Your task to perform on an android device: Open calendar and show me the third week of next month Image 0: 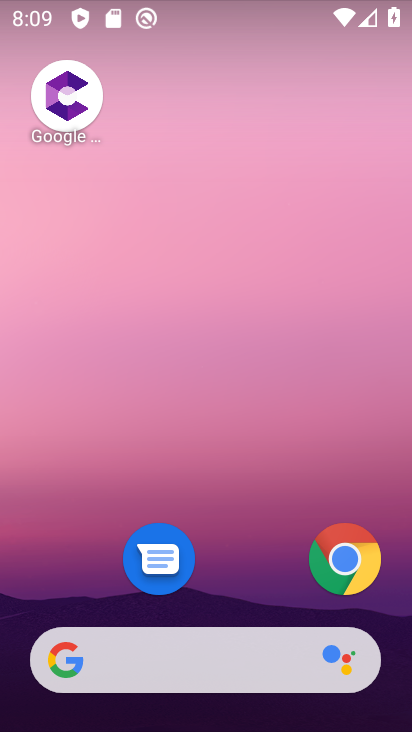
Step 0: drag from (256, 698) to (221, 9)
Your task to perform on an android device: Open calendar and show me the third week of next month Image 1: 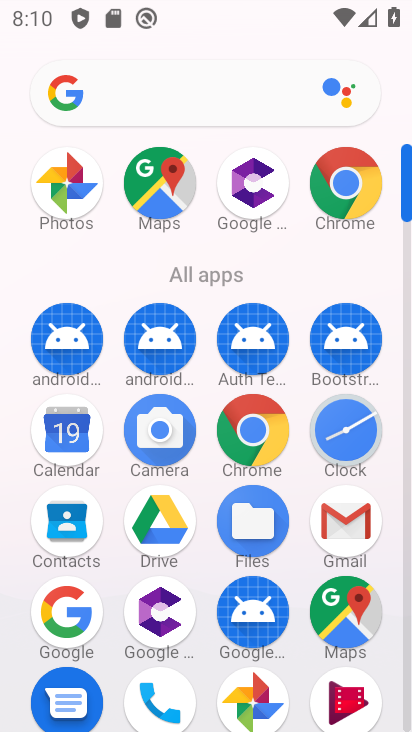
Step 1: click (77, 427)
Your task to perform on an android device: Open calendar and show me the third week of next month Image 2: 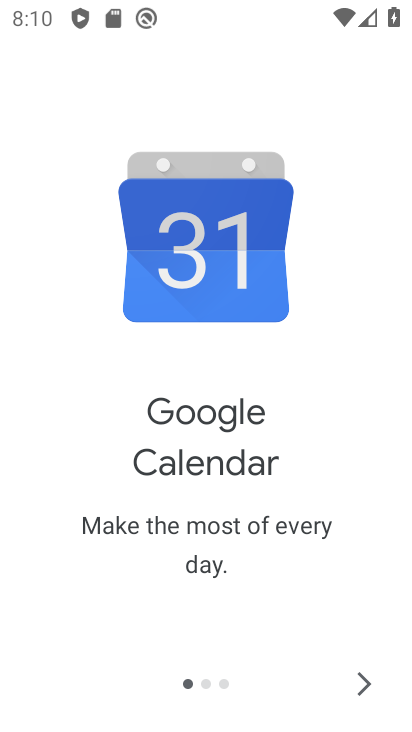
Step 2: click (374, 691)
Your task to perform on an android device: Open calendar and show me the third week of next month Image 3: 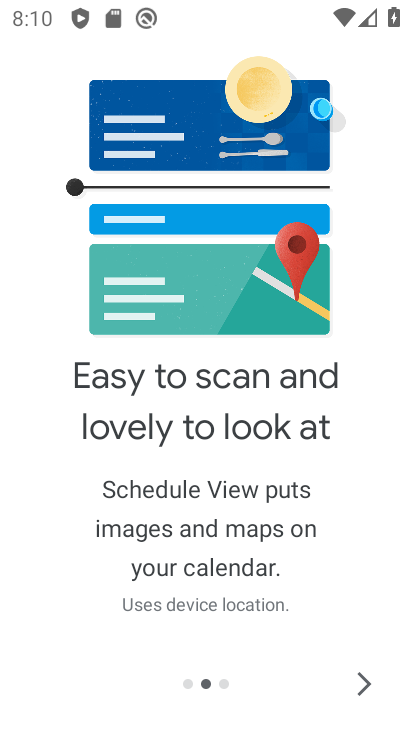
Step 3: click (371, 682)
Your task to perform on an android device: Open calendar and show me the third week of next month Image 4: 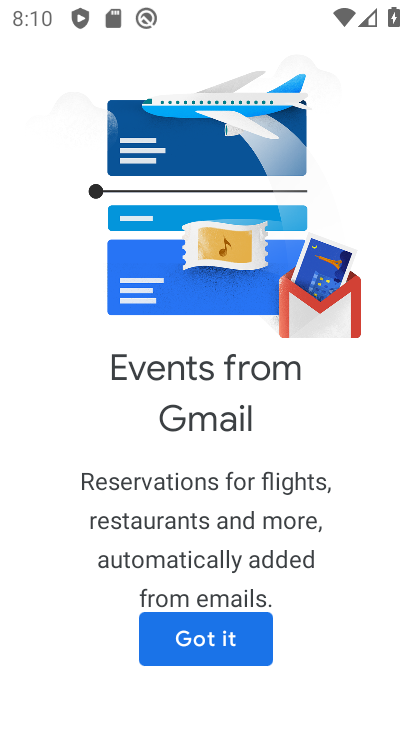
Step 4: click (232, 628)
Your task to perform on an android device: Open calendar and show me the third week of next month Image 5: 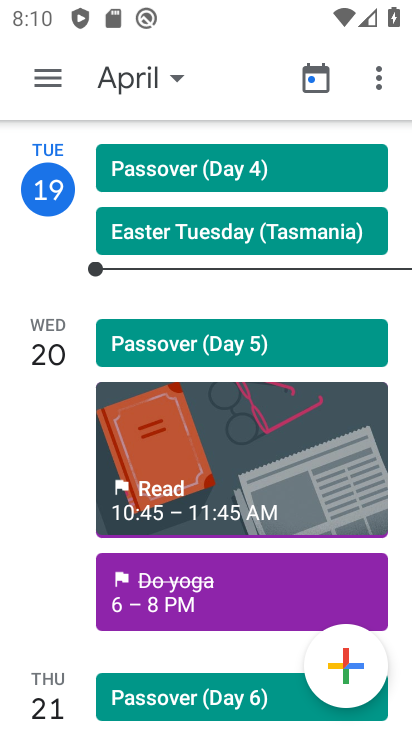
Step 5: click (36, 73)
Your task to perform on an android device: Open calendar and show me the third week of next month Image 6: 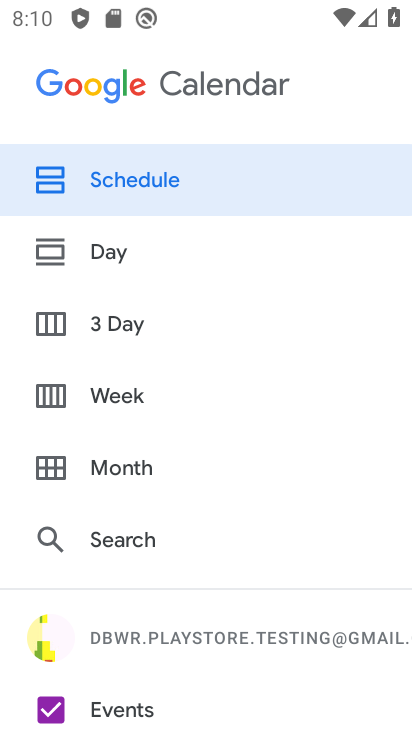
Step 6: click (134, 466)
Your task to perform on an android device: Open calendar and show me the third week of next month Image 7: 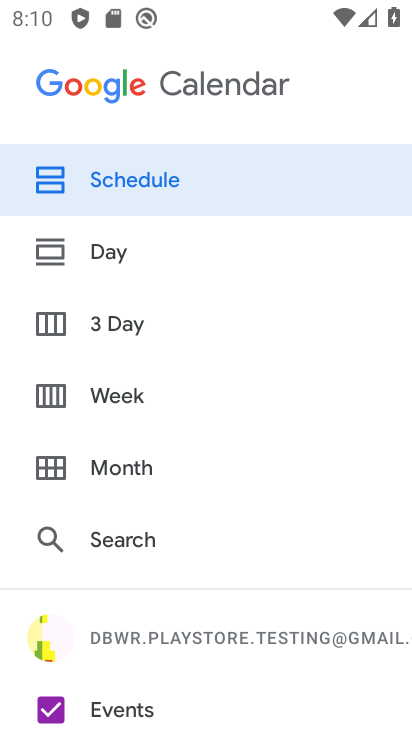
Step 7: click (132, 460)
Your task to perform on an android device: Open calendar and show me the third week of next month Image 8: 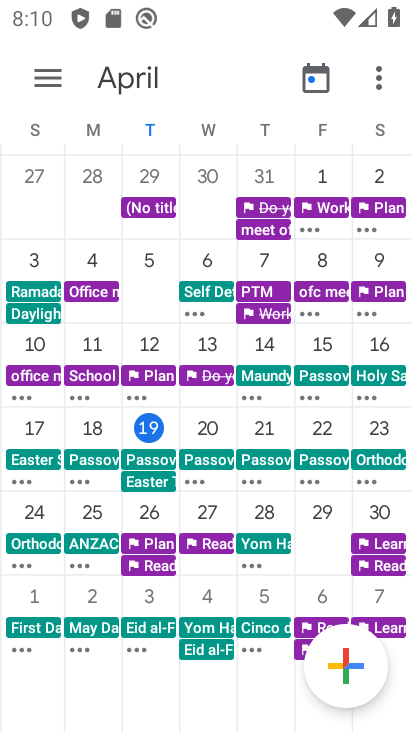
Step 8: drag from (385, 436) to (0, 401)
Your task to perform on an android device: Open calendar and show me the third week of next month Image 9: 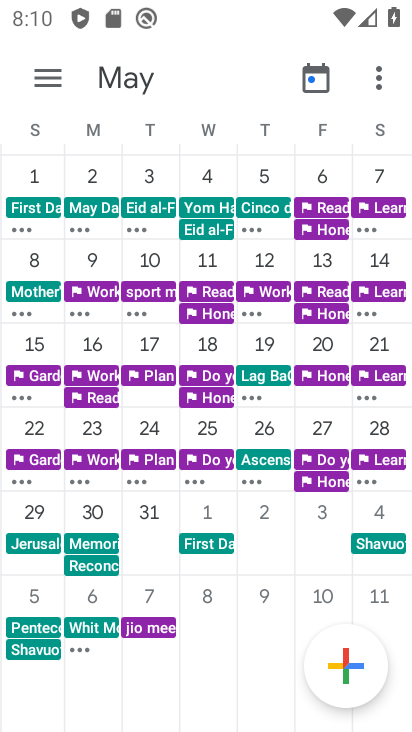
Step 9: click (94, 352)
Your task to perform on an android device: Open calendar and show me the third week of next month Image 10: 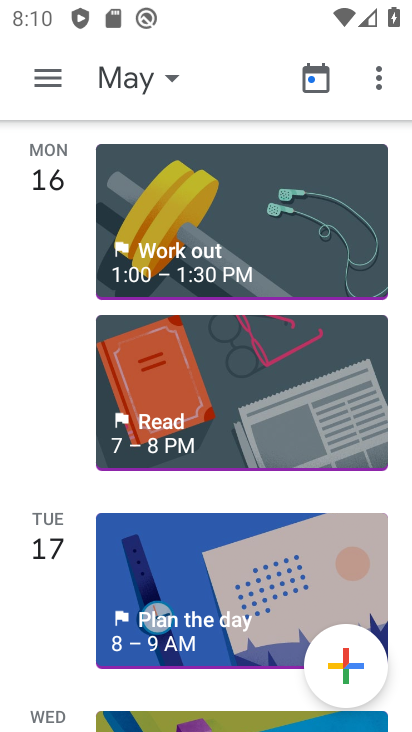
Step 10: task complete